Your task to perform on an android device: Add "logitech g pro" to the cart on bestbuy.com, then select checkout. Image 0: 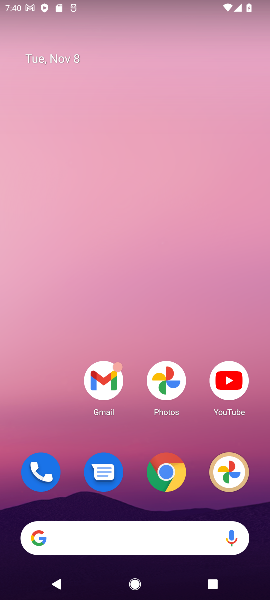
Step 0: click (164, 474)
Your task to perform on an android device: Add "logitech g pro" to the cart on bestbuy.com, then select checkout. Image 1: 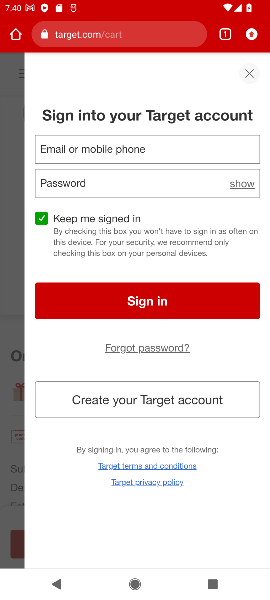
Step 1: click (125, 38)
Your task to perform on an android device: Add "logitech g pro" to the cart on bestbuy.com, then select checkout. Image 2: 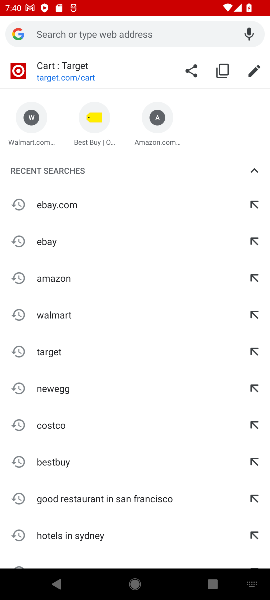
Step 2: type "bestbuy.com"
Your task to perform on an android device: Add "logitech g pro" to the cart on bestbuy.com, then select checkout. Image 3: 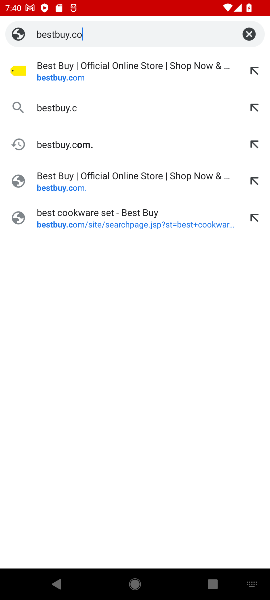
Step 3: press enter
Your task to perform on an android device: Add "logitech g pro" to the cart on bestbuy.com, then select checkout. Image 4: 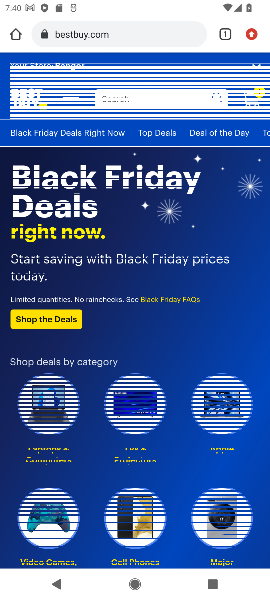
Step 4: click (160, 98)
Your task to perform on an android device: Add "logitech g pro" to the cart on bestbuy.com, then select checkout. Image 5: 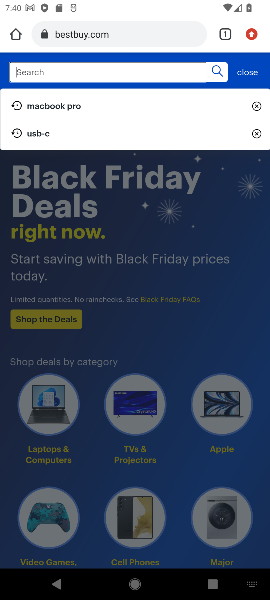
Step 5: type "logitech g pro"
Your task to perform on an android device: Add "logitech g pro" to the cart on bestbuy.com, then select checkout. Image 6: 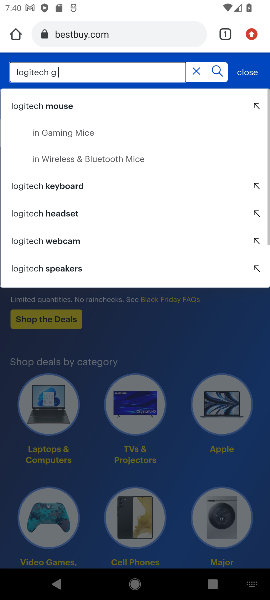
Step 6: press enter
Your task to perform on an android device: Add "logitech g pro" to the cart on bestbuy.com, then select checkout. Image 7: 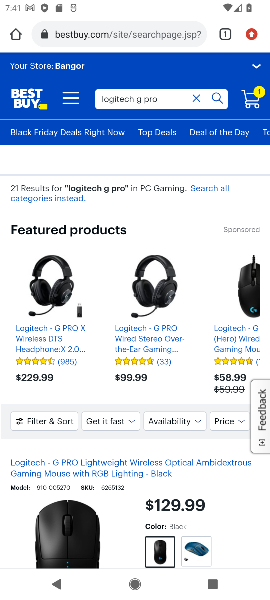
Step 7: drag from (98, 499) to (146, 326)
Your task to perform on an android device: Add "logitech g pro" to the cart on bestbuy.com, then select checkout. Image 8: 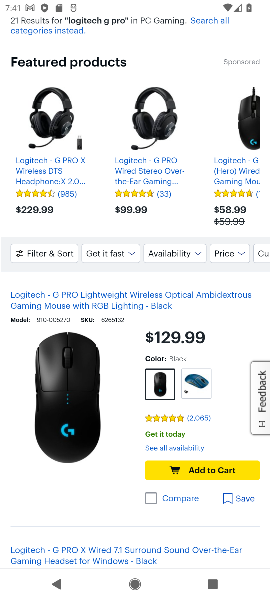
Step 8: click (217, 467)
Your task to perform on an android device: Add "logitech g pro" to the cart on bestbuy.com, then select checkout. Image 9: 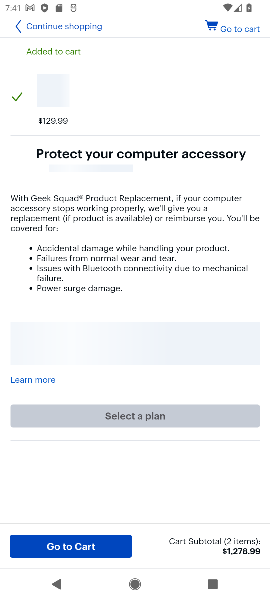
Step 9: click (242, 28)
Your task to perform on an android device: Add "logitech g pro" to the cart on bestbuy.com, then select checkout. Image 10: 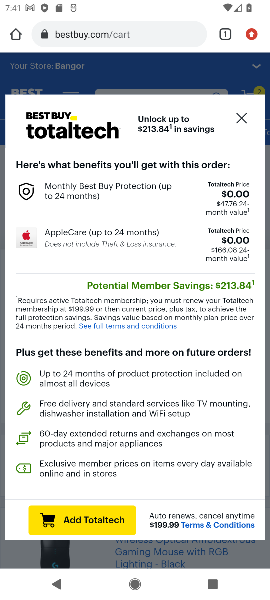
Step 10: click (243, 116)
Your task to perform on an android device: Add "logitech g pro" to the cart on bestbuy.com, then select checkout. Image 11: 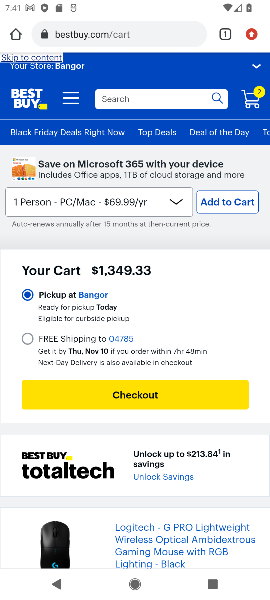
Step 11: drag from (103, 507) to (159, 250)
Your task to perform on an android device: Add "logitech g pro" to the cart on bestbuy.com, then select checkout. Image 12: 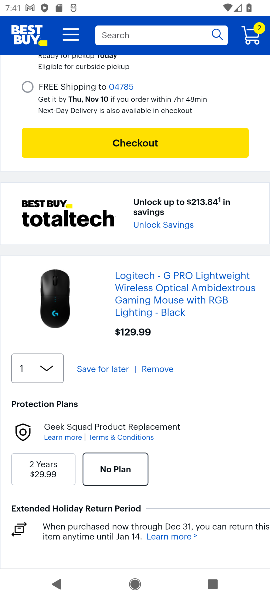
Step 12: drag from (133, 159) to (252, 78)
Your task to perform on an android device: Add "logitech g pro" to the cart on bestbuy.com, then select checkout. Image 13: 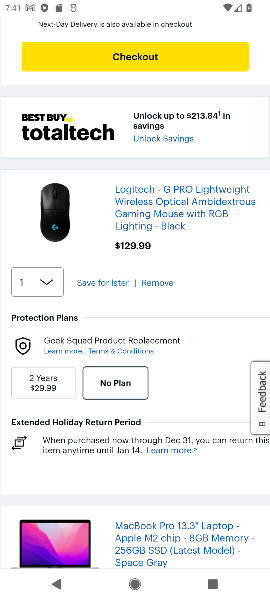
Step 13: drag from (128, 501) to (197, 254)
Your task to perform on an android device: Add "logitech g pro" to the cart on bestbuy.com, then select checkout. Image 14: 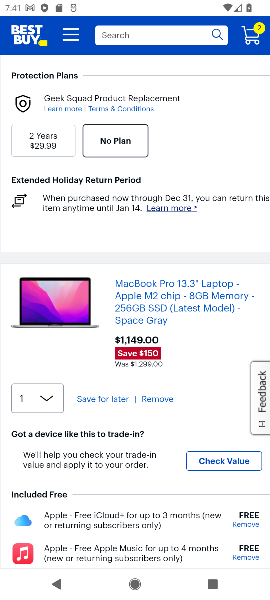
Step 14: drag from (92, 475) to (146, 340)
Your task to perform on an android device: Add "logitech g pro" to the cart on bestbuy.com, then select checkout. Image 15: 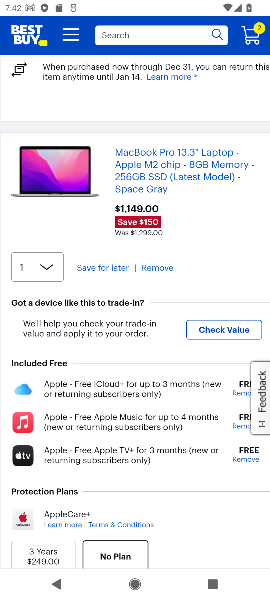
Step 15: click (159, 266)
Your task to perform on an android device: Add "logitech g pro" to the cart on bestbuy.com, then select checkout. Image 16: 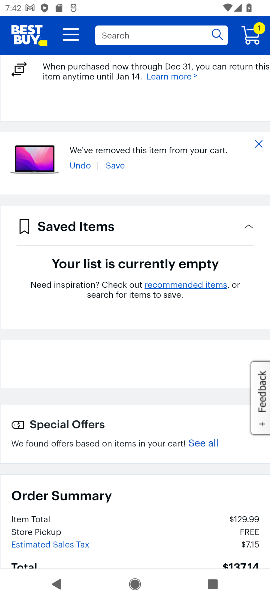
Step 16: drag from (137, 444) to (111, 583)
Your task to perform on an android device: Add "logitech g pro" to the cart on bestbuy.com, then select checkout. Image 17: 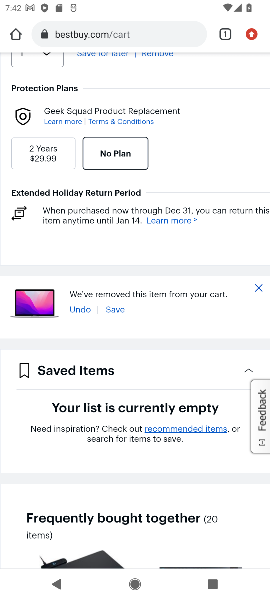
Step 17: drag from (218, 153) to (156, 537)
Your task to perform on an android device: Add "logitech g pro" to the cart on bestbuy.com, then select checkout. Image 18: 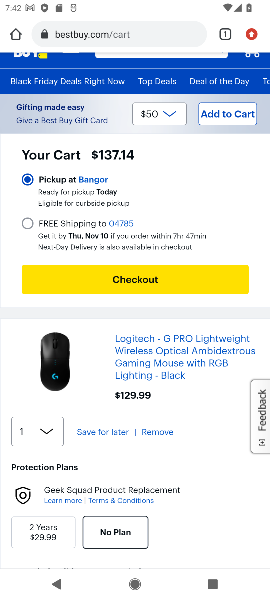
Step 18: click (152, 278)
Your task to perform on an android device: Add "logitech g pro" to the cart on bestbuy.com, then select checkout. Image 19: 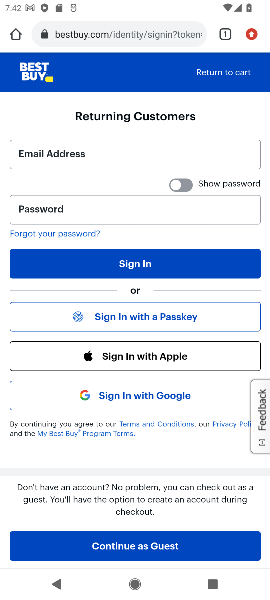
Step 19: task complete